Your task to perform on an android device: Open the phone app and click the voicemail tab. Image 0: 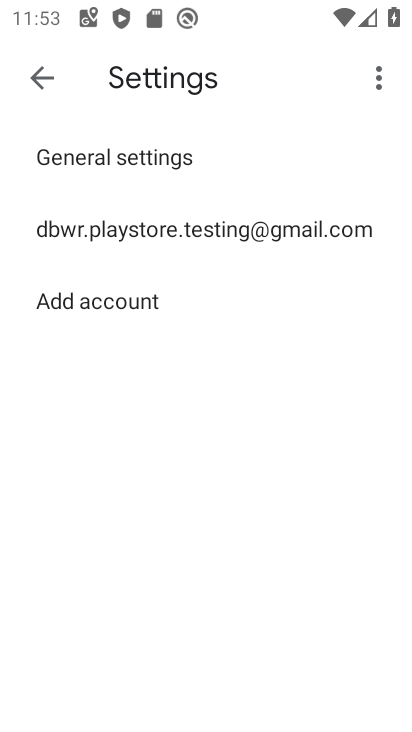
Step 0: press home button
Your task to perform on an android device: Open the phone app and click the voicemail tab. Image 1: 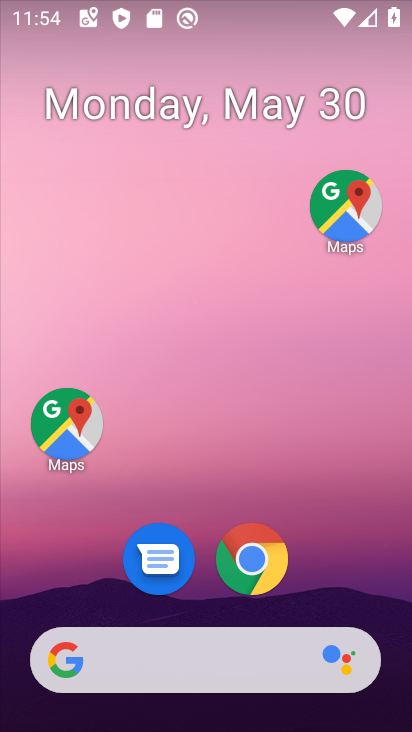
Step 1: drag from (353, 531) to (209, 49)
Your task to perform on an android device: Open the phone app and click the voicemail tab. Image 2: 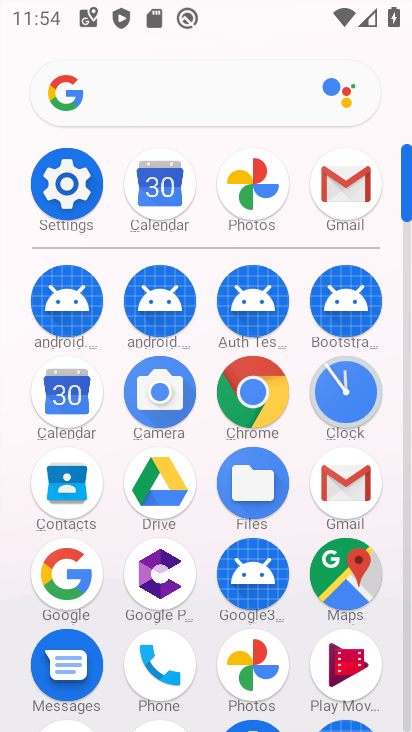
Step 2: click (165, 652)
Your task to perform on an android device: Open the phone app and click the voicemail tab. Image 3: 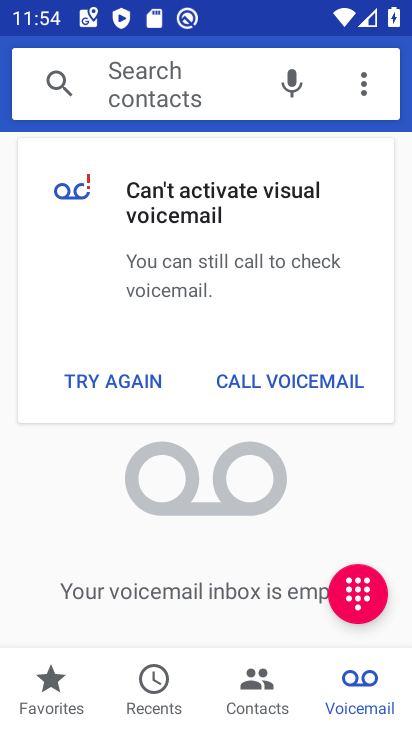
Step 3: task complete